Your task to perform on an android device: turn off javascript in the chrome app Image 0: 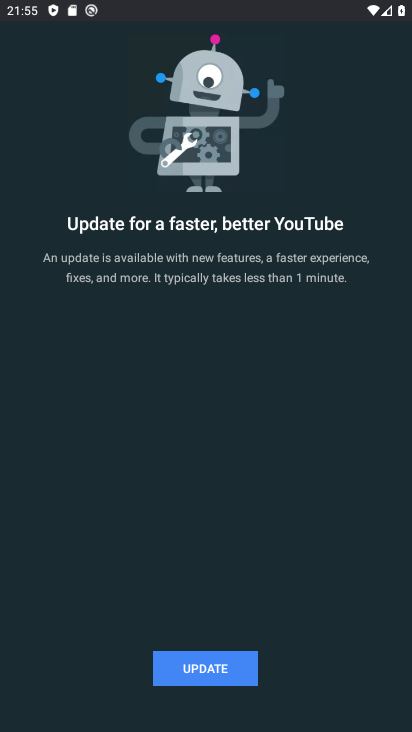
Step 0: press back button
Your task to perform on an android device: turn off javascript in the chrome app Image 1: 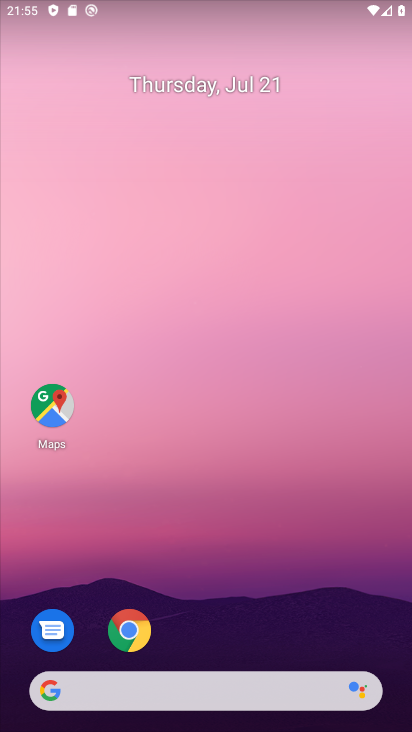
Step 1: click (134, 626)
Your task to perform on an android device: turn off javascript in the chrome app Image 2: 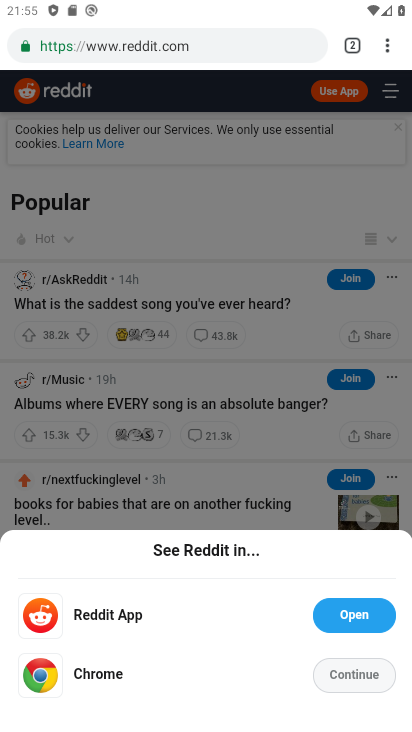
Step 2: click (350, 678)
Your task to perform on an android device: turn off javascript in the chrome app Image 3: 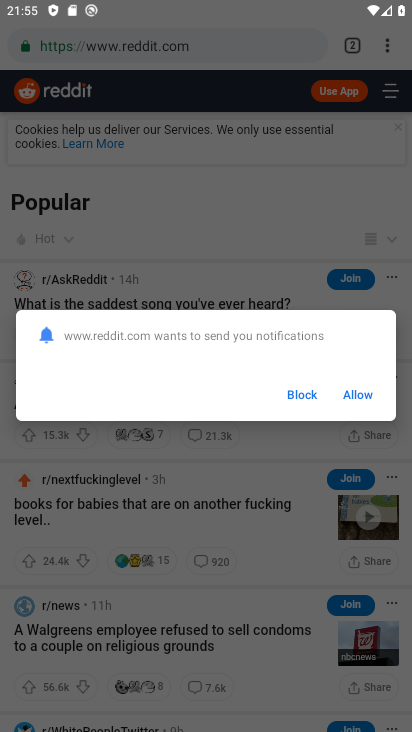
Step 3: click (355, 403)
Your task to perform on an android device: turn off javascript in the chrome app Image 4: 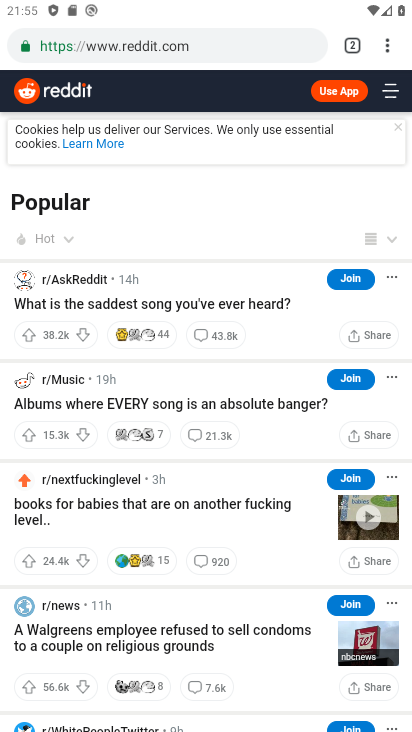
Step 4: drag from (387, 42) to (238, 554)
Your task to perform on an android device: turn off javascript in the chrome app Image 5: 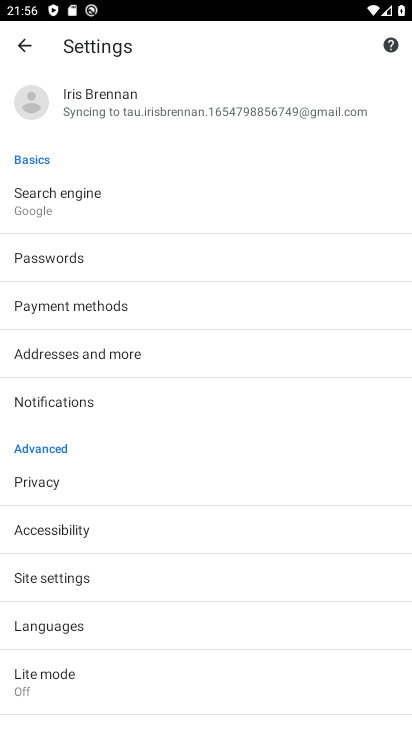
Step 5: click (61, 580)
Your task to perform on an android device: turn off javascript in the chrome app Image 6: 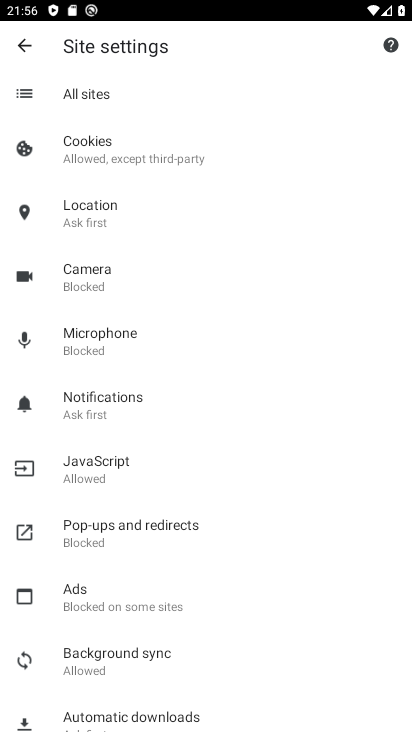
Step 6: click (154, 474)
Your task to perform on an android device: turn off javascript in the chrome app Image 7: 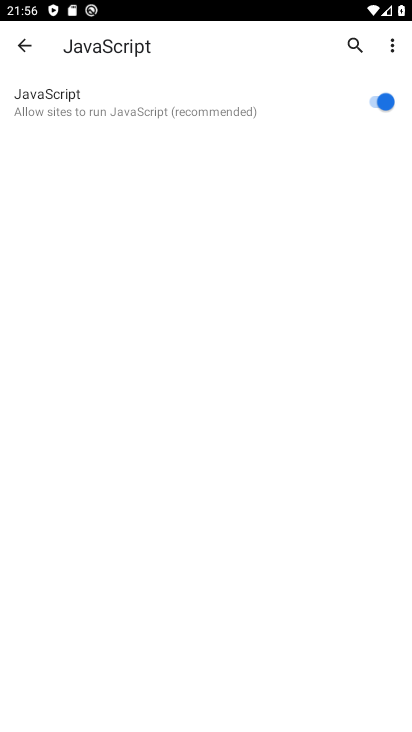
Step 7: click (385, 97)
Your task to perform on an android device: turn off javascript in the chrome app Image 8: 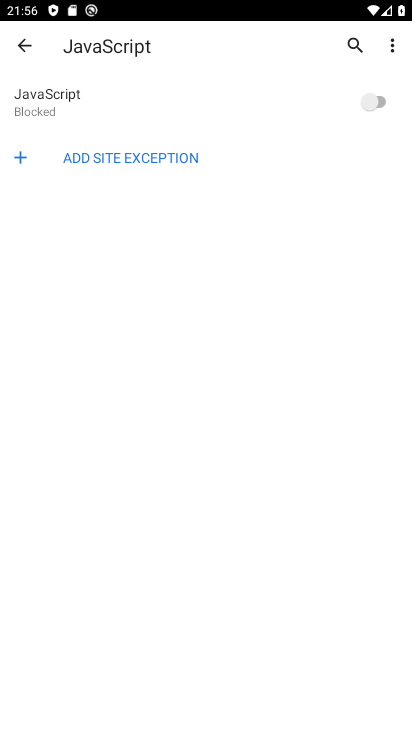
Step 8: task complete